Your task to perform on an android device: toggle sleep mode Image 0: 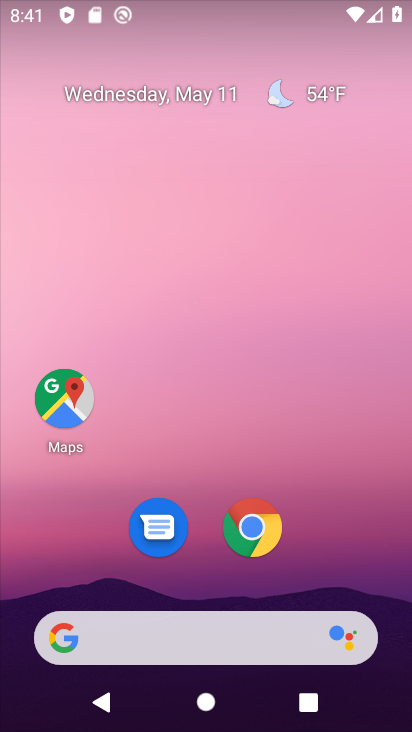
Step 0: drag from (321, 533) to (345, 93)
Your task to perform on an android device: toggle sleep mode Image 1: 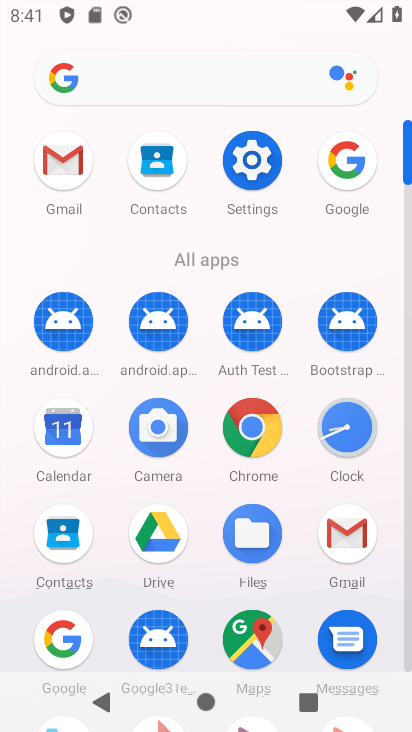
Step 1: click (250, 172)
Your task to perform on an android device: toggle sleep mode Image 2: 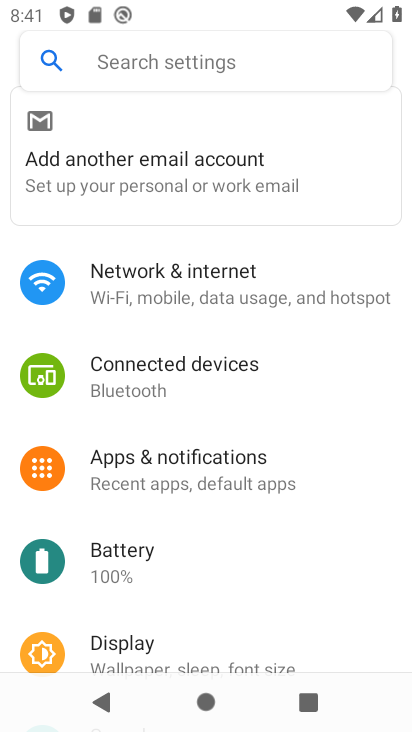
Step 2: drag from (231, 619) to (246, 454)
Your task to perform on an android device: toggle sleep mode Image 3: 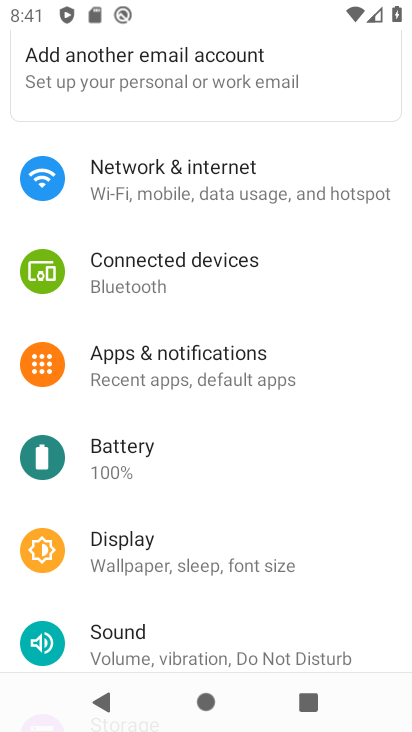
Step 3: click (215, 538)
Your task to perform on an android device: toggle sleep mode Image 4: 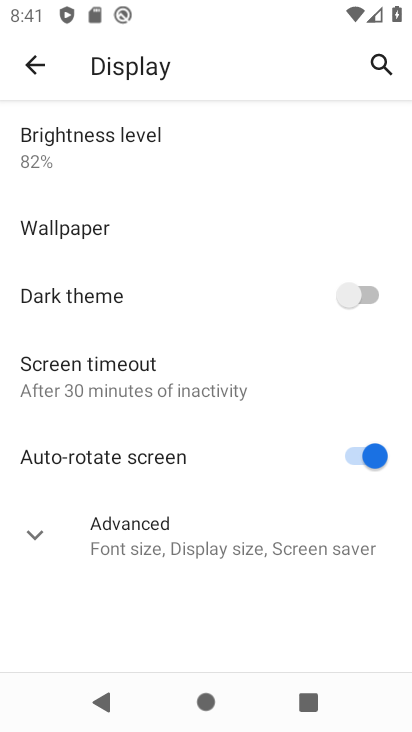
Step 4: click (33, 527)
Your task to perform on an android device: toggle sleep mode Image 5: 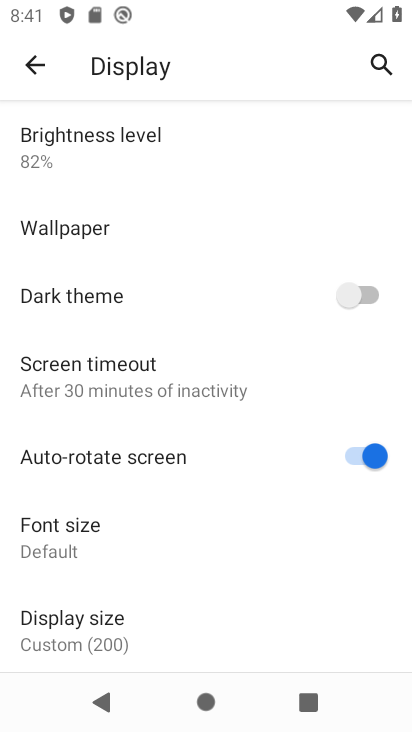
Step 5: task complete